Your task to perform on an android device: Show the shopping cart on costco. Search for bose soundlink on costco, select the first entry, add it to the cart, then select checkout. Image 0: 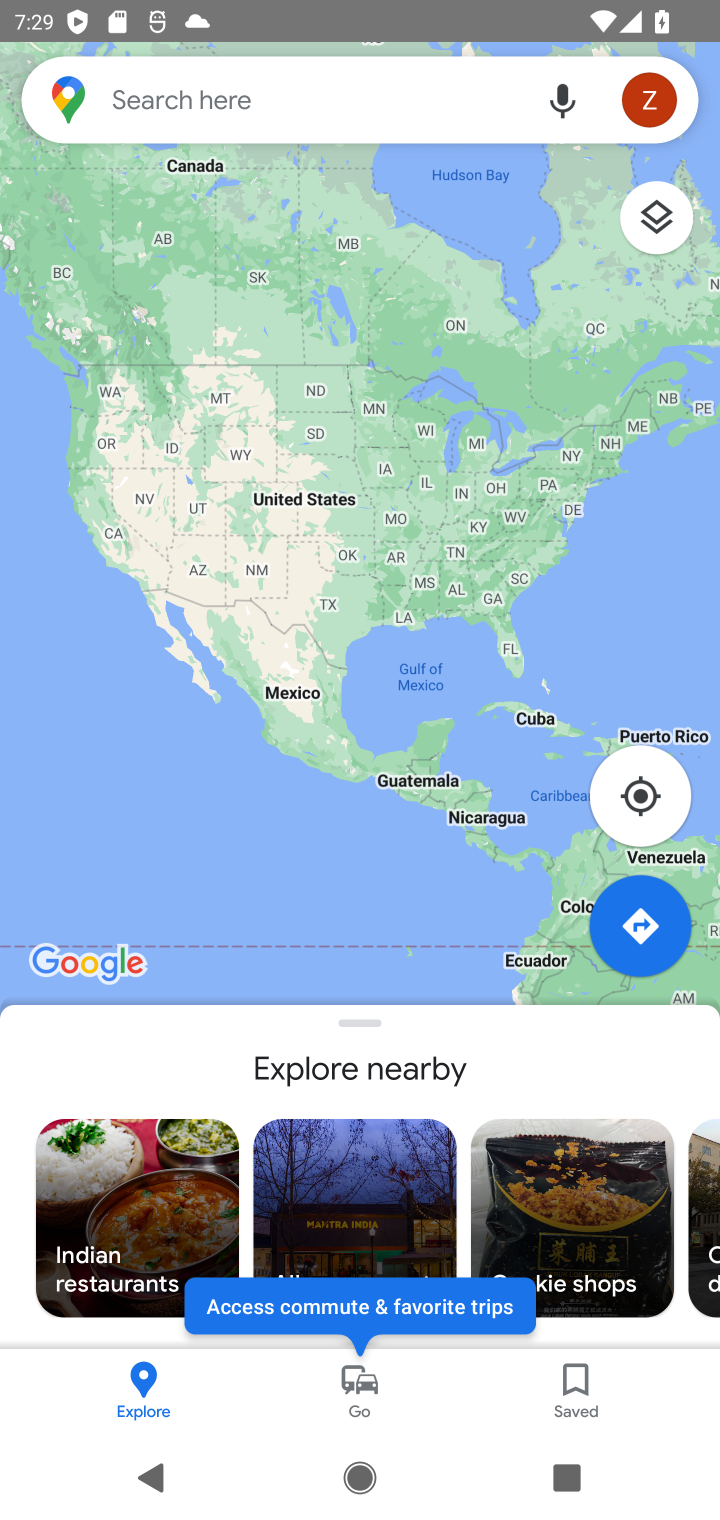
Step 0: press home button
Your task to perform on an android device: Show the shopping cart on costco. Search for bose soundlink on costco, select the first entry, add it to the cart, then select checkout. Image 1: 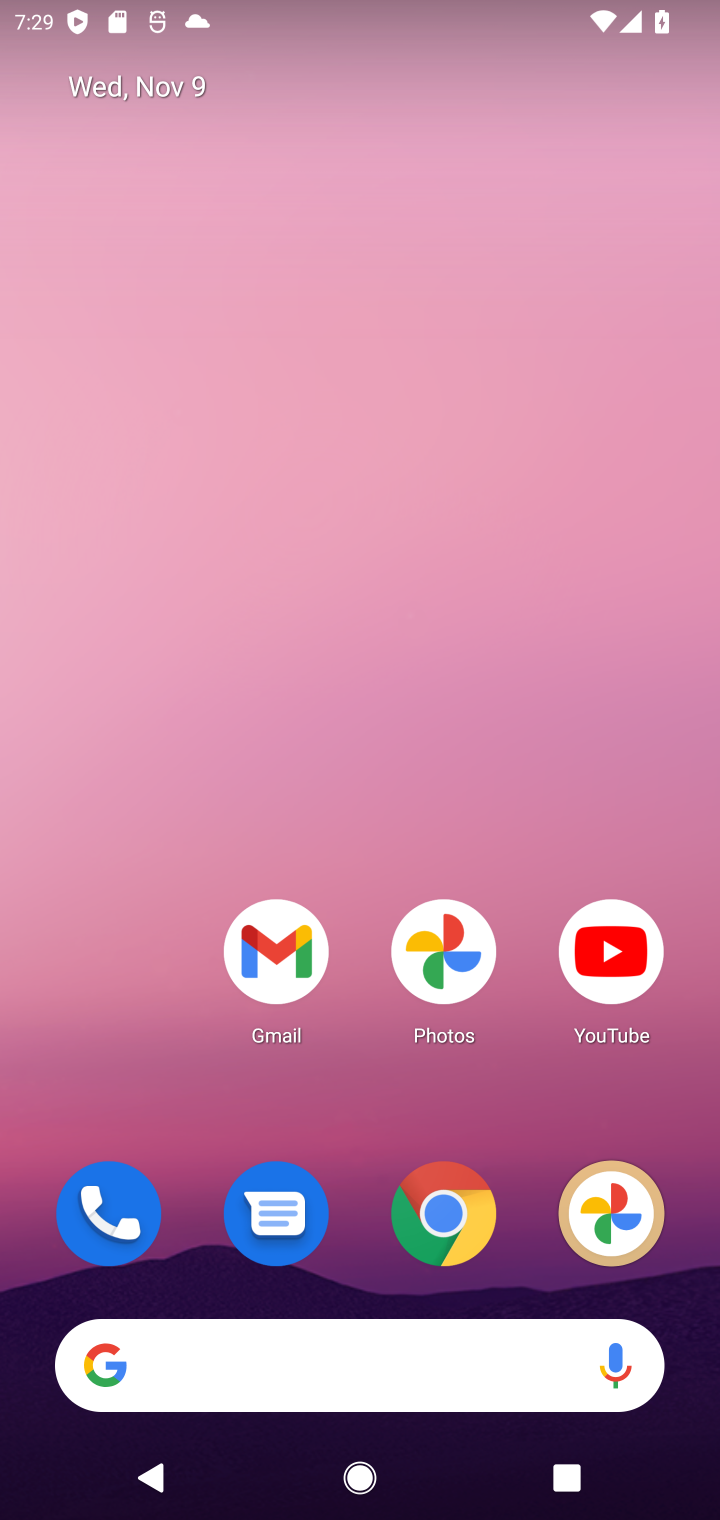
Step 1: click (456, 1203)
Your task to perform on an android device: Show the shopping cart on costco. Search for bose soundlink on costco, select the first entry, add it to the cart, then select checkout. Image 2: 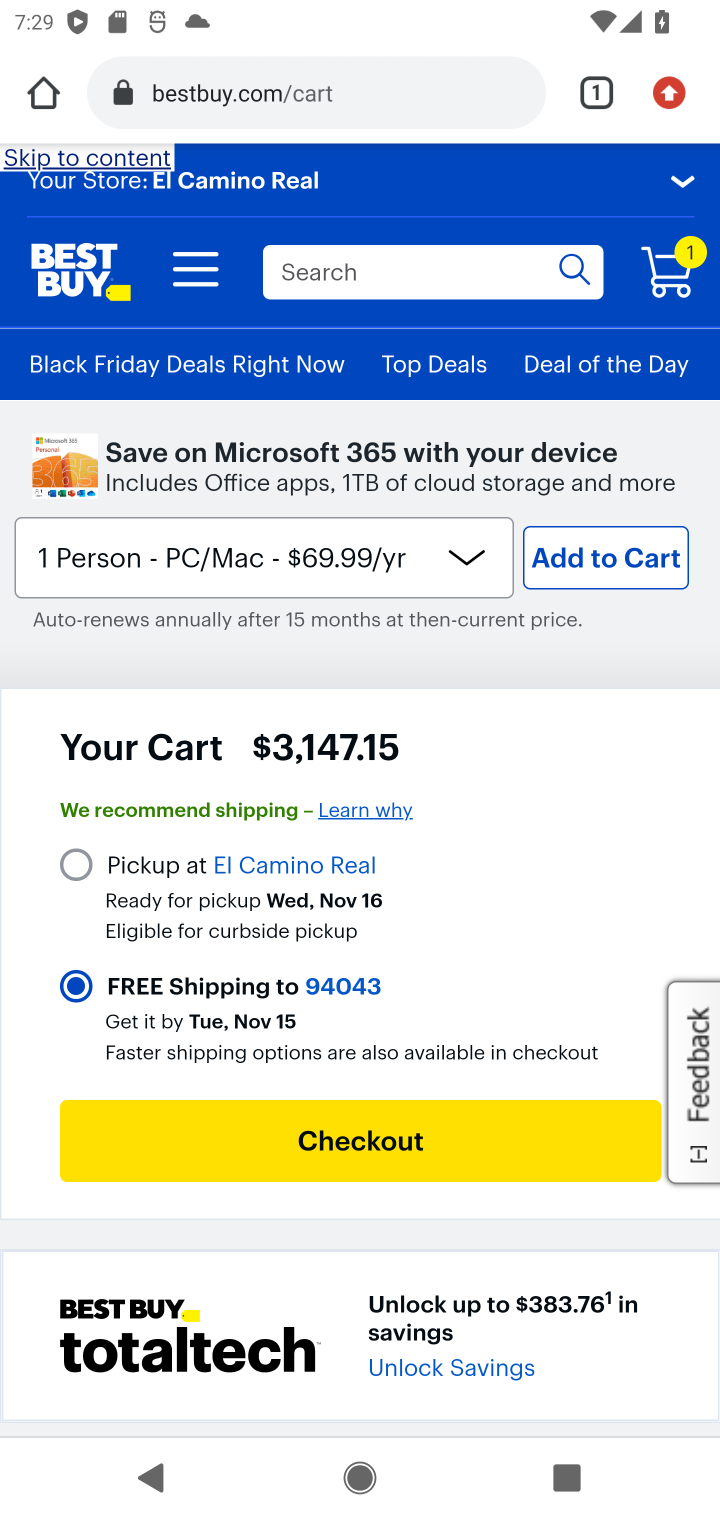
Step 2: click (213, 93)
Your task to perform on an android device: Show the shopping cart on costco. Search for bose soundlink on costco, select the first entry, add it to the cart, then select checkout. Image 3: 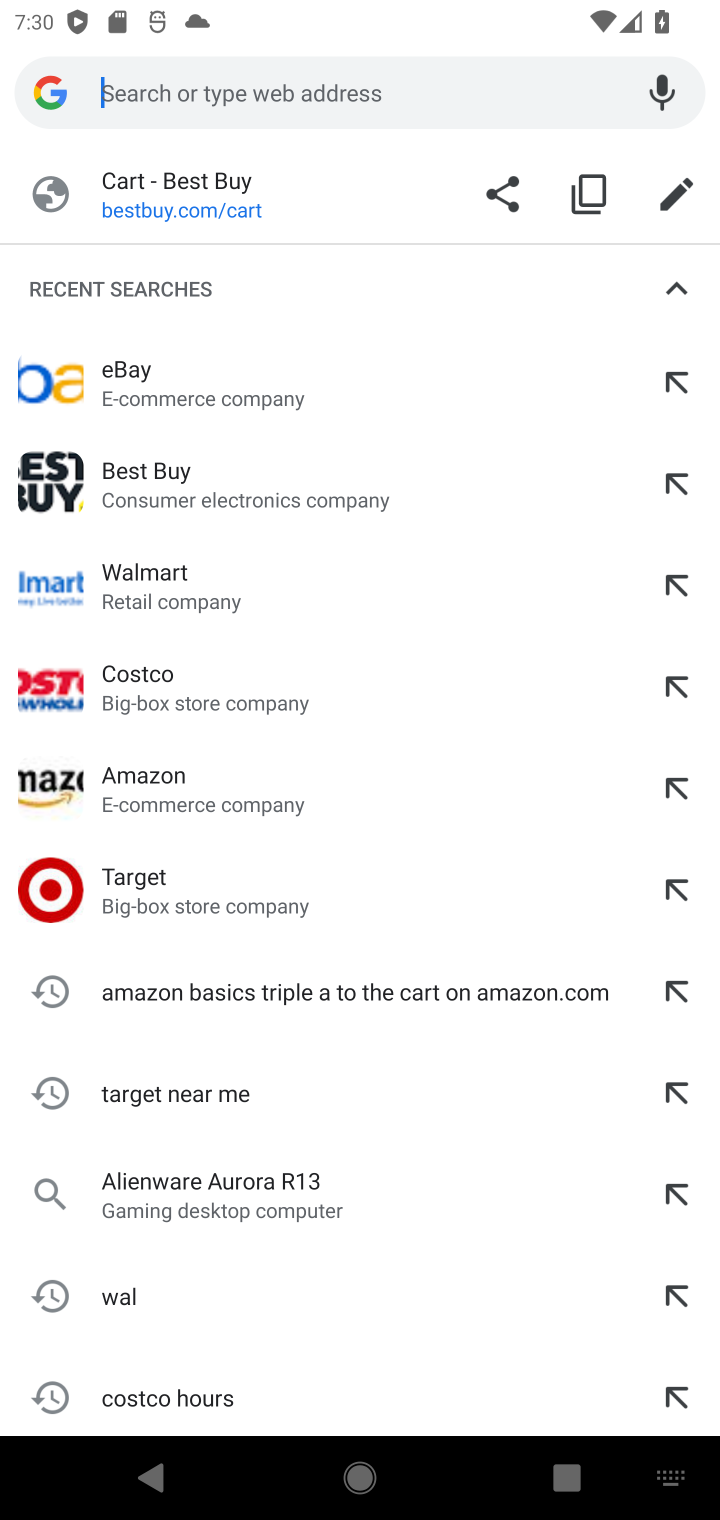
Step 3: type "costco"
Your task to perform on an android device: Show the shopping cart on costco. Search for bose soundlink on costco, select the first entry, add it to the cart, then select checkout. Image 4: 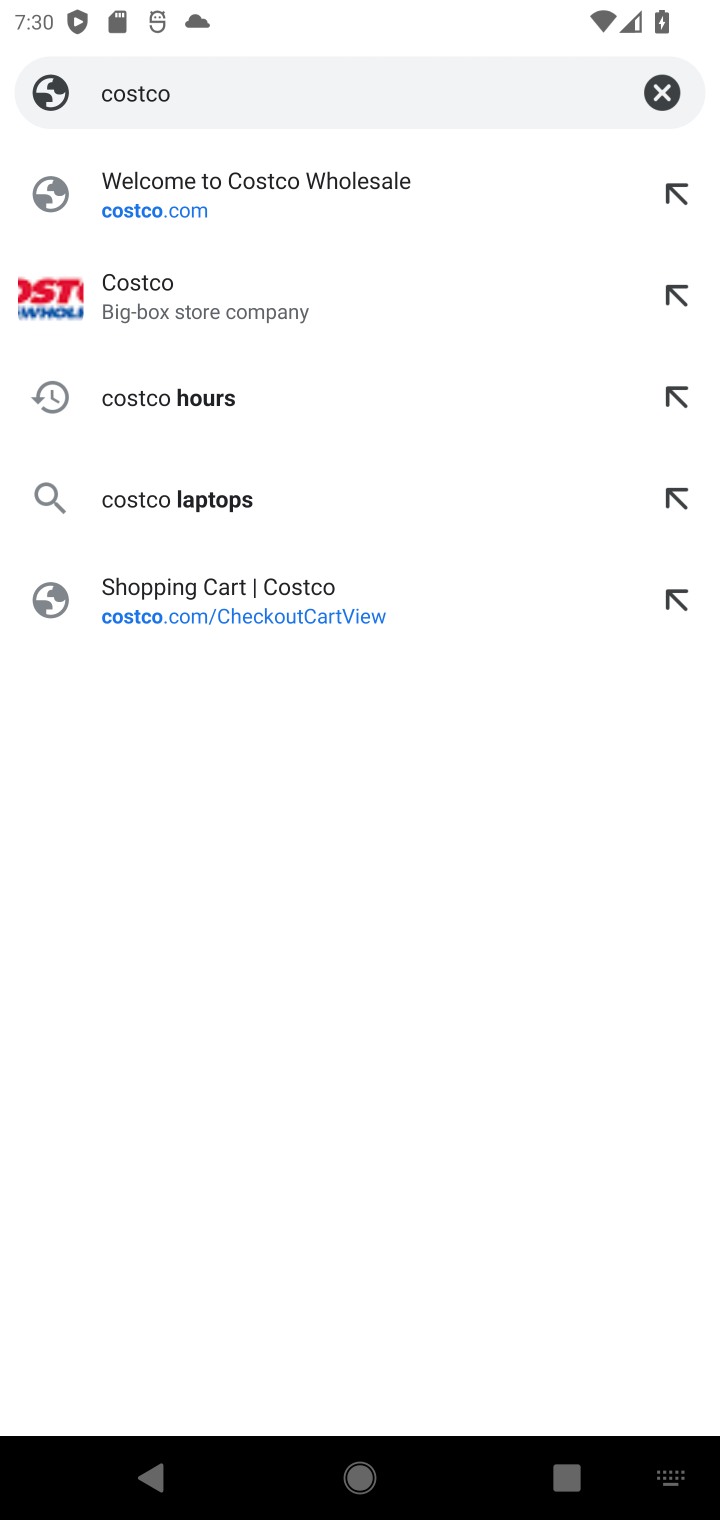
Step 4: click (173, 278)
Your task to perform on an android device: Show the shopping cart on costco. Search for bose soundlink on costco, select the first entry, add it to the cart, then select checkout. Image 5: 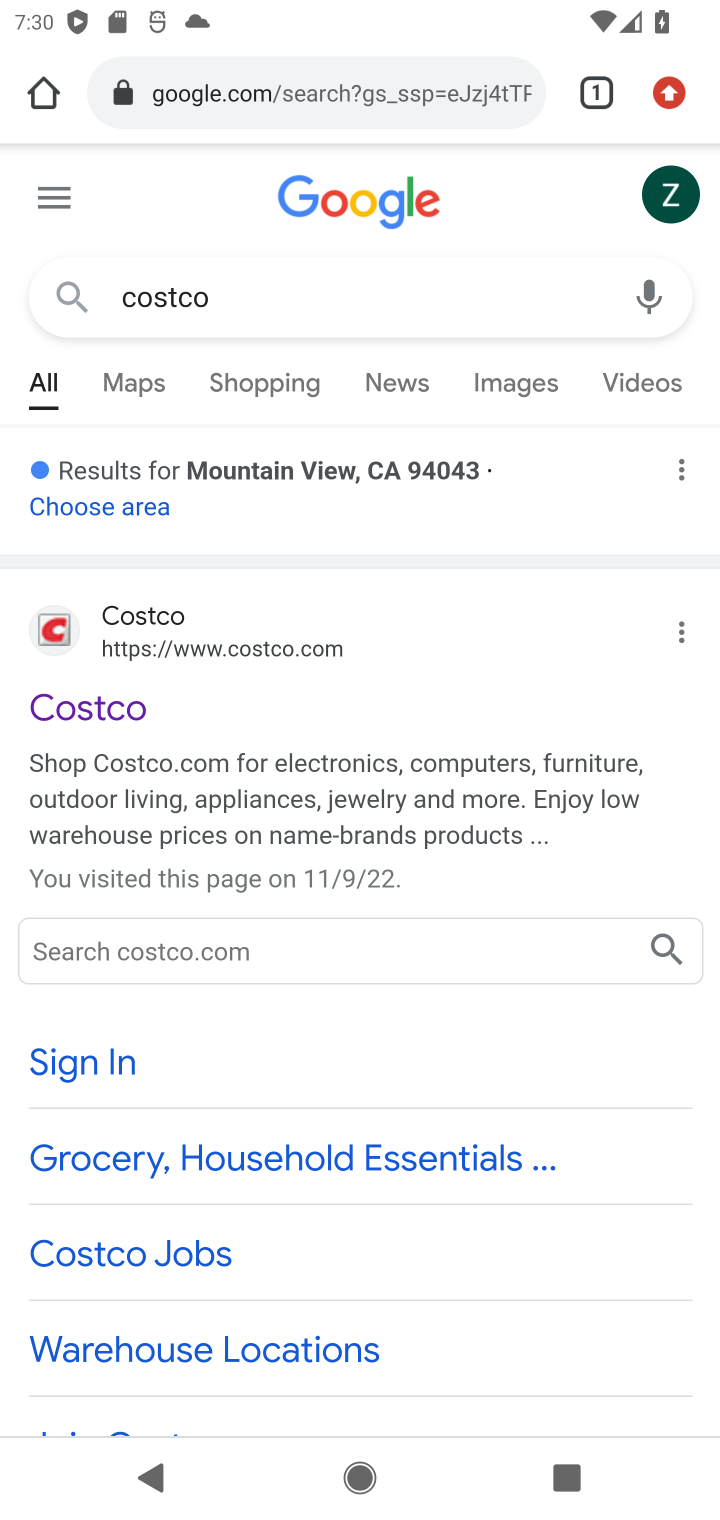
Step 5: click (75, 717)
Your task to perform on an android device: Show the shopping cart on costco. Search for bose soundlink on costco, select the first entry, add it to the cart, then select checkout. Image 6: 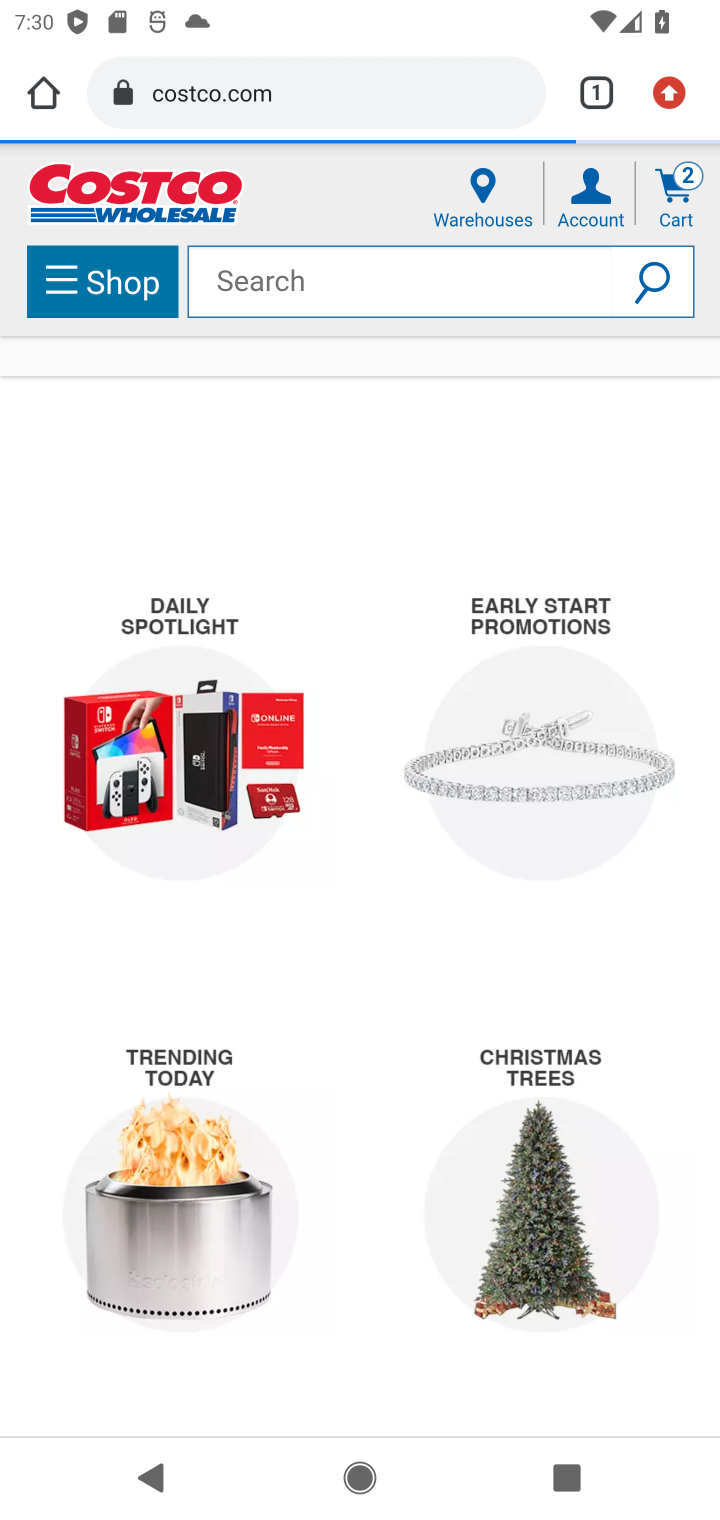
Step 6: click (270, 282)
Your task to perform on an android device: Show the shopping cart on costco. Search for bose soundlink on costco, select the first entry, add it to the cart, then select checkout. Image 7: 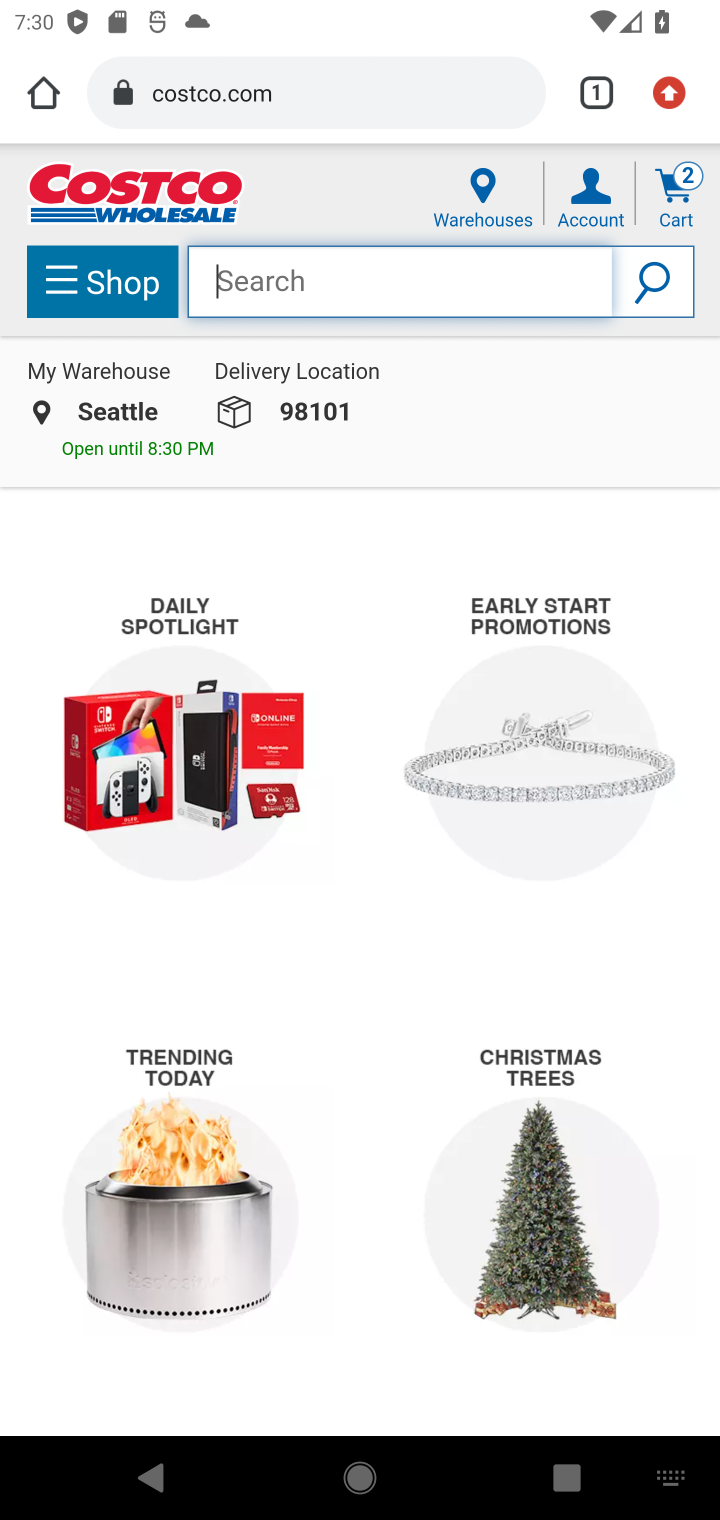
Step 7: type "bose soundlink"
Your task to perform on an android device: Show the shopping cart on costco. Search for bose soundlink on costco, select the first entry, add it to the cart, then select checkout. Image 8: 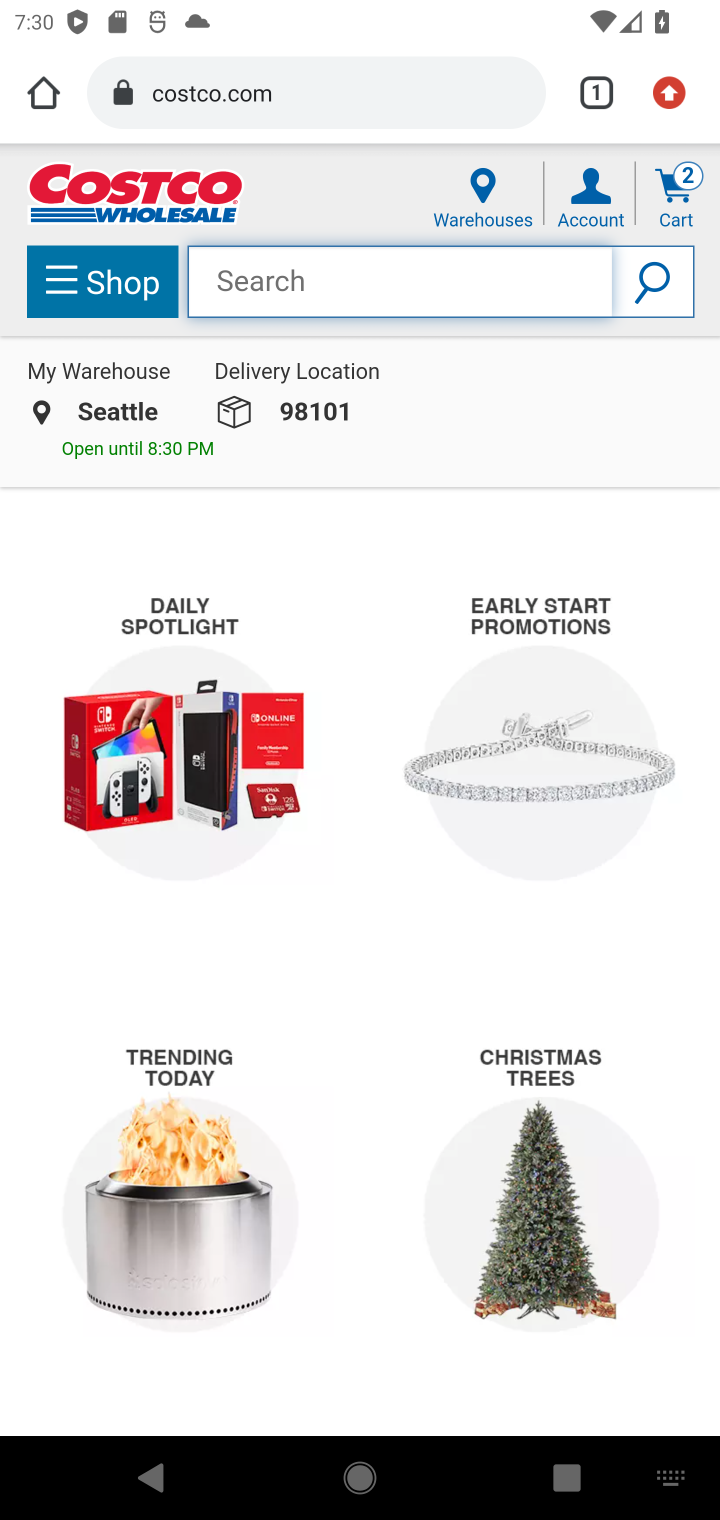
Step 8: type ""
Your task to perform on an android device: Show the shopping cart on costco. Search for bose soundlink on costco, select the first entry, add it to the cart, then select checkout. Image 9: 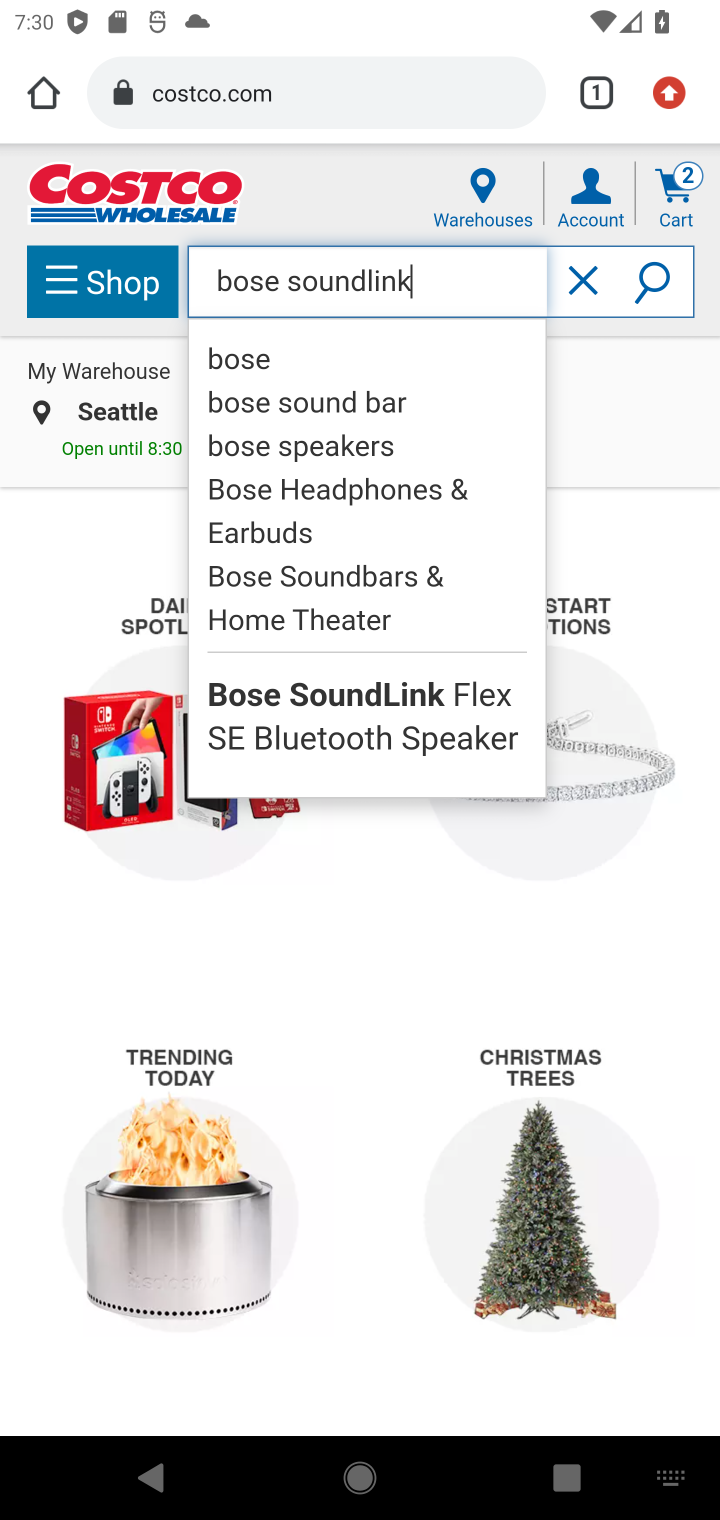
Step 9: click (232, 366)
Your task to perform on an android device: Show the shopping cart on costco. Search for bose soundlink on costco, select the first entry, add it to the cart, then select checkout. Image 10: 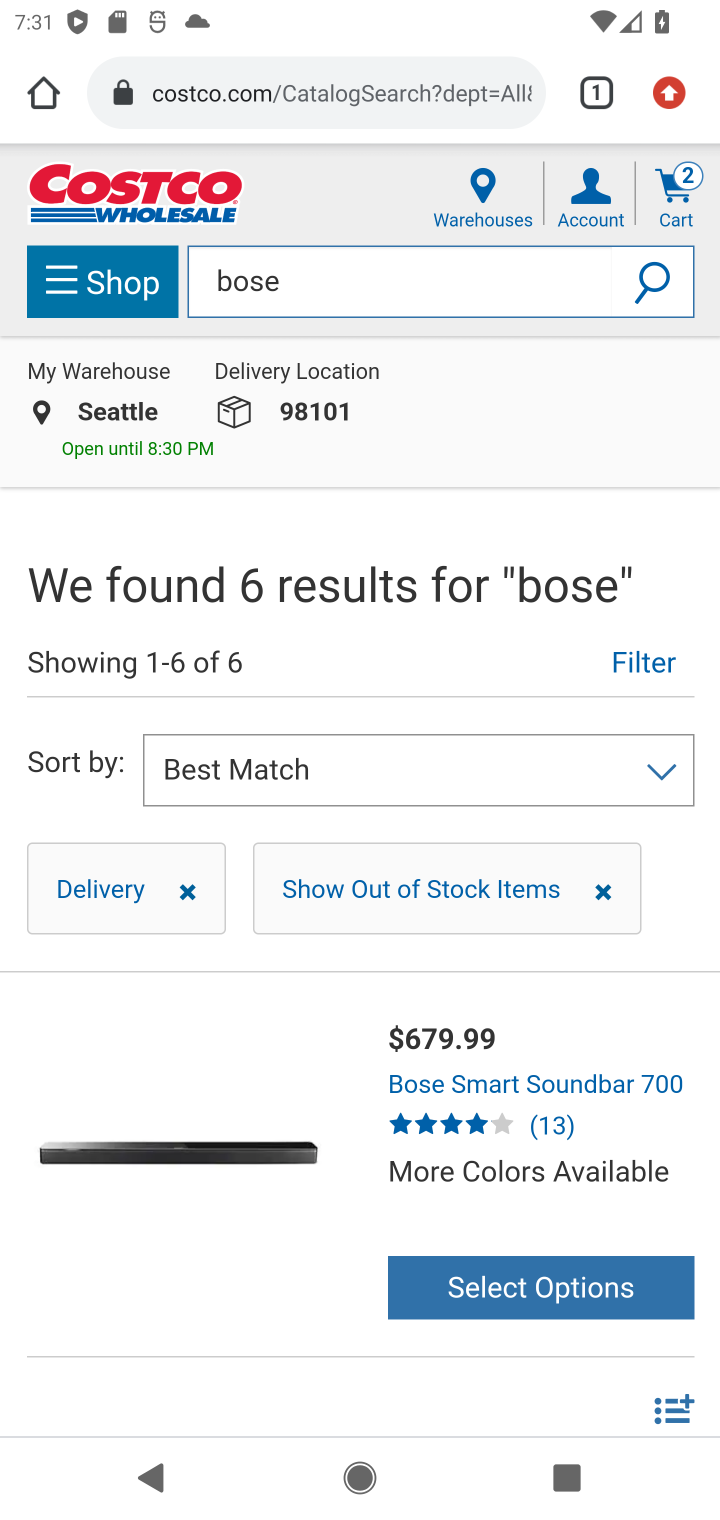
Step 10: click (672, 184)
Your task to perform on an android device: Show the shopping cart on costco. Search for bose soundlink on costco, select the first entry, add it to the cart, then select checkout. Image 11: 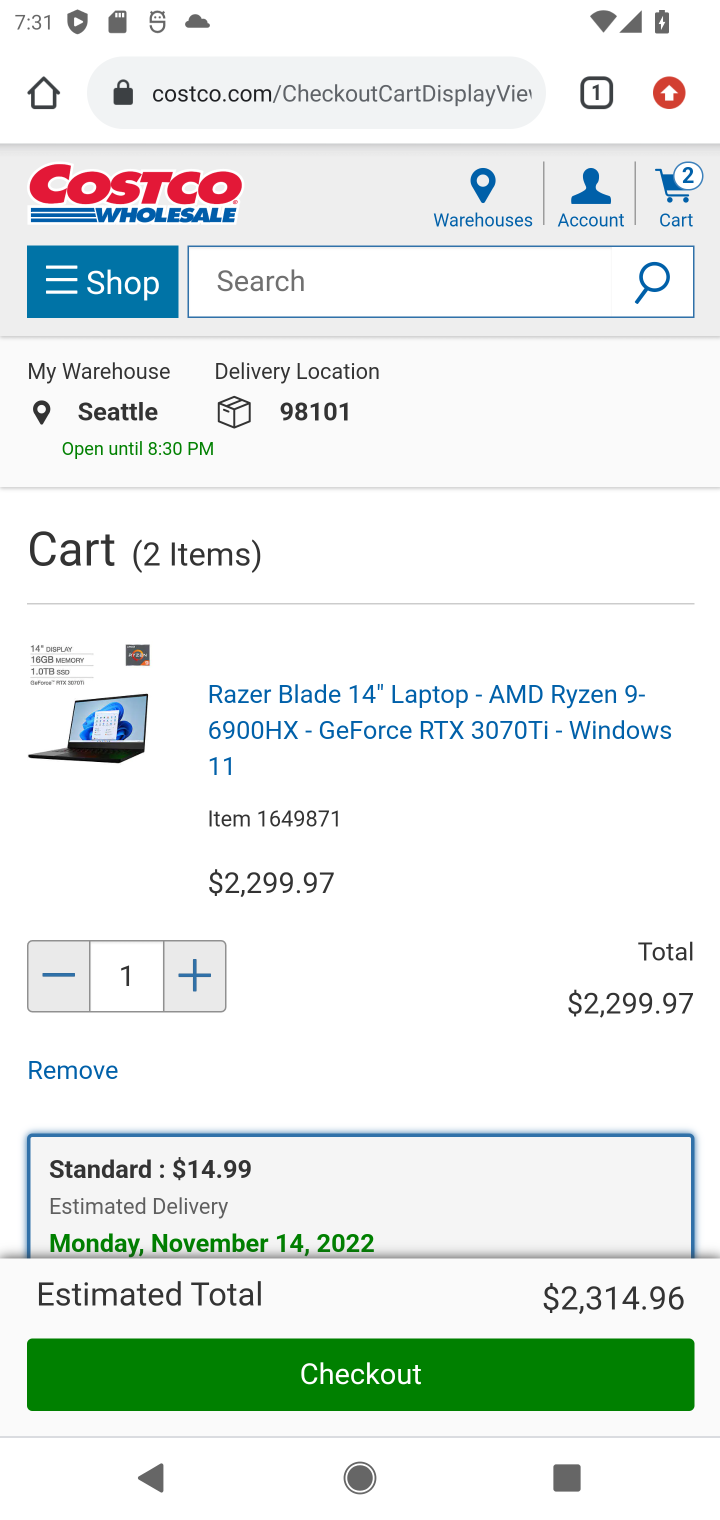
Step 11: click (465, 1384)
Your task to perform on an android device: Show the shopping cart on costco. Search for bose soundlink on costco, select the first entry, add it to the cart, then select checkout. Image 12: 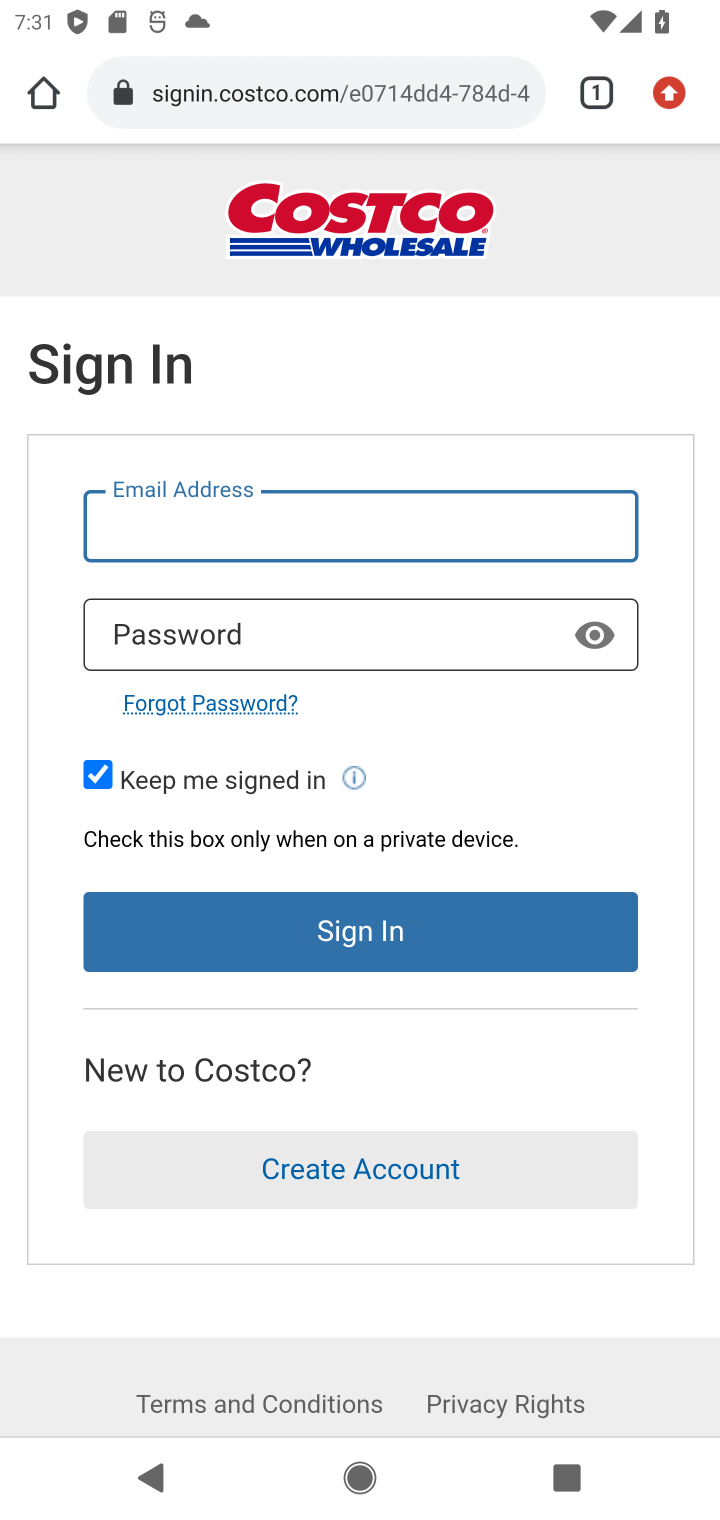
Step 12: click (259, 93)
Your task to perform on an android device: Show the shopping cart on costco. Search for bose soundlink on costco, select the first entry, add it to the cart, then select checkout. Image 13: 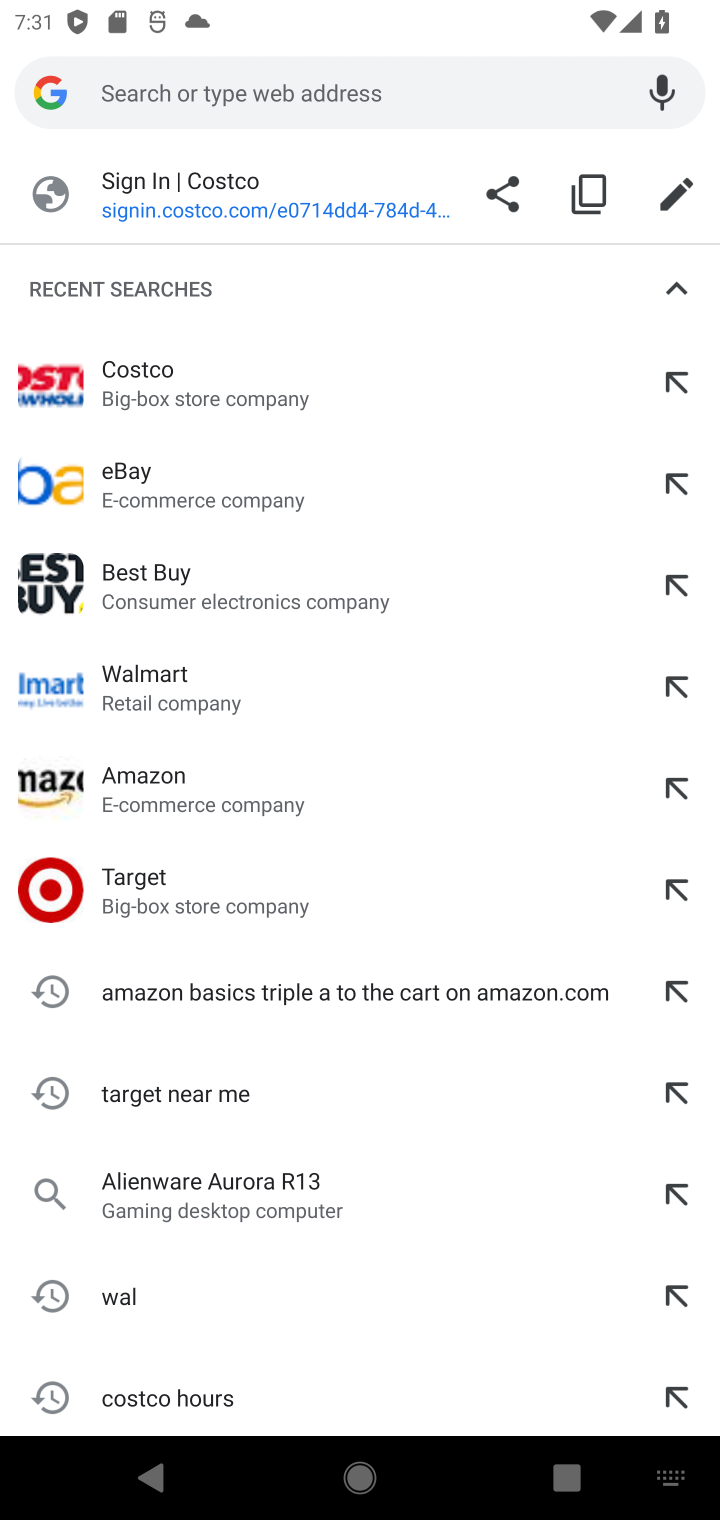
Step 13: click (126, 388)
Your task to perform on an android device: Show the shopping cart on costco. Search for bose soundlink on costco, select the first entry, add it to the cart, then select checkout. Image 14: 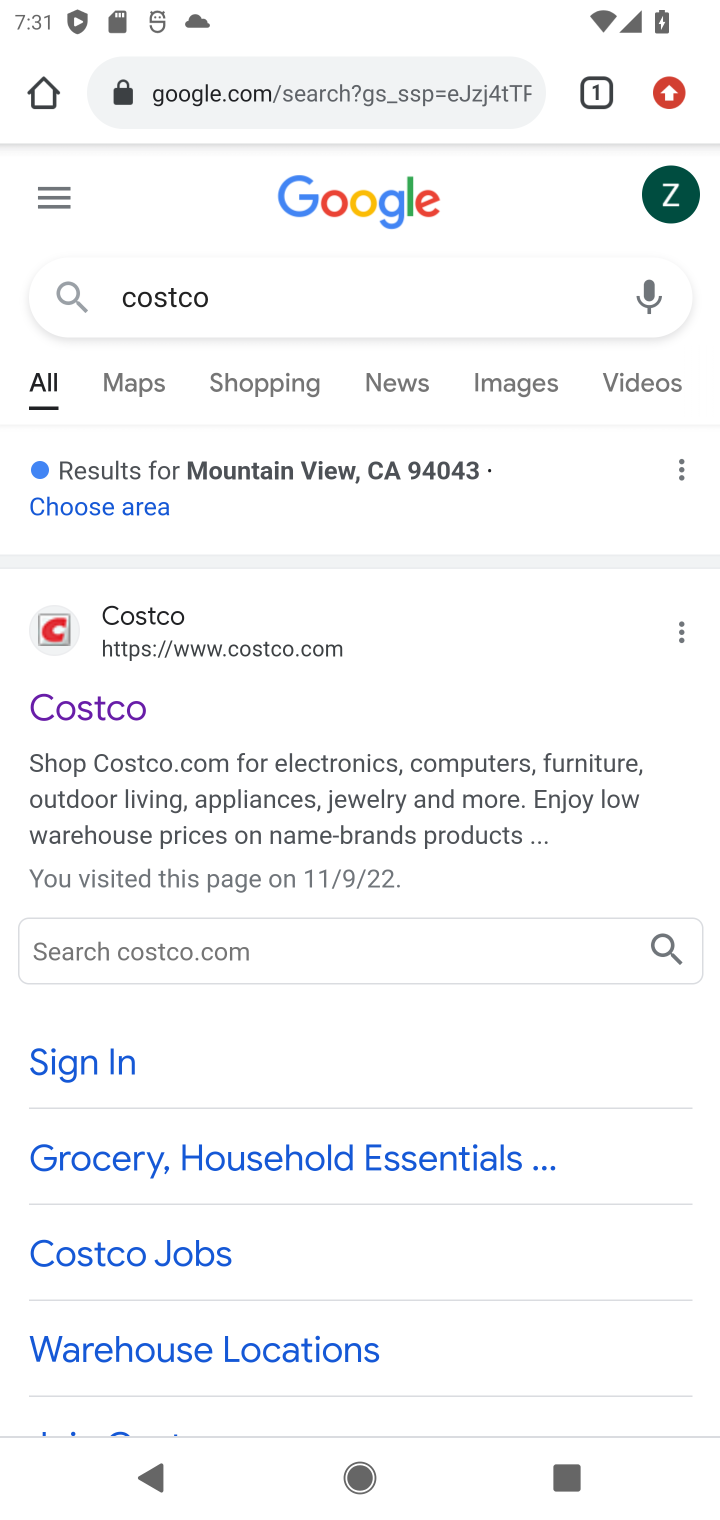
Step 14: click (81, 703)
Your task to perform on an android device: Show the shopping cart on costco. Search for bose soundlink on costco, select the first entry, add it to the cart, then select checkout. Image 15: 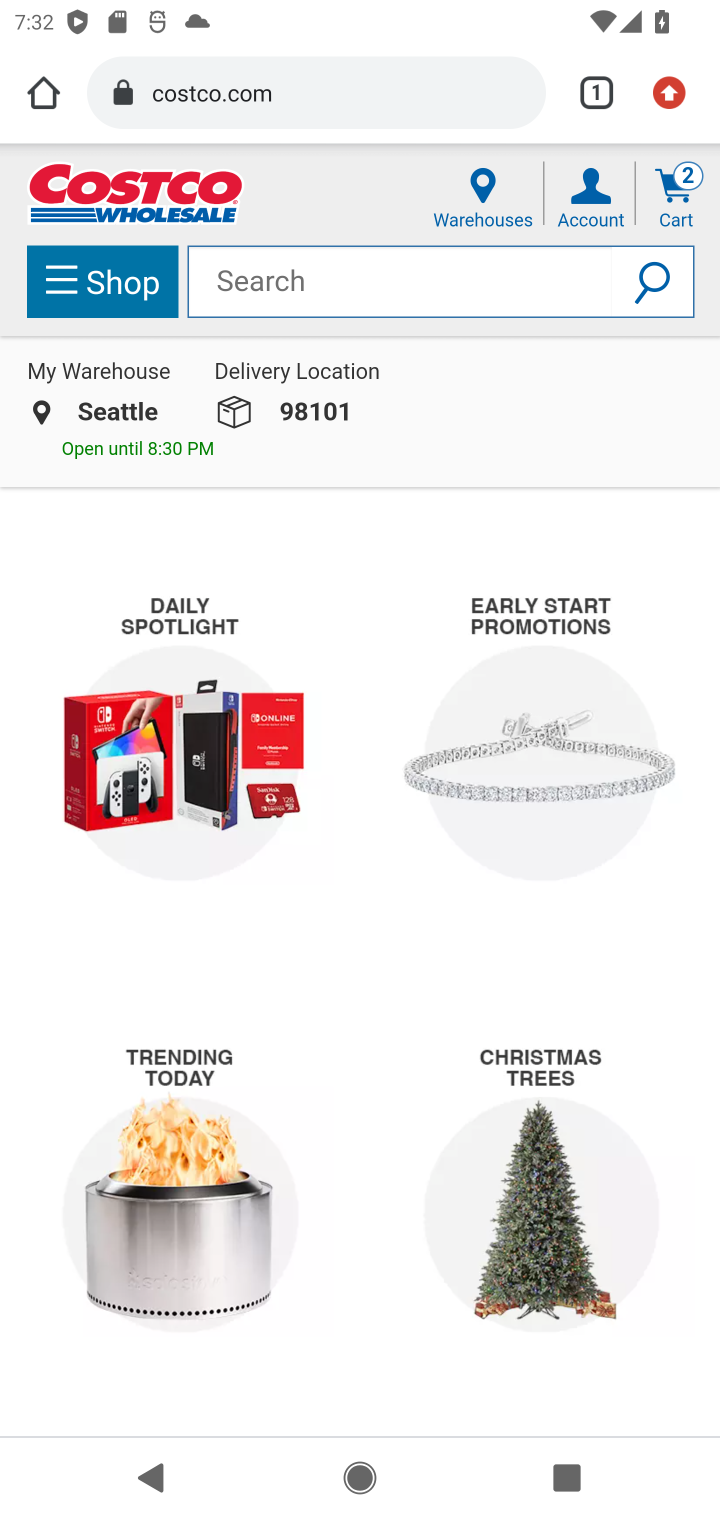
Step 15: click (401, 299)
Your task to perform on an android device: Show the shopping cart on costco. Search for bose soundlink on costco, select the first entry, add it to the cart, then select checkout. Image 16: 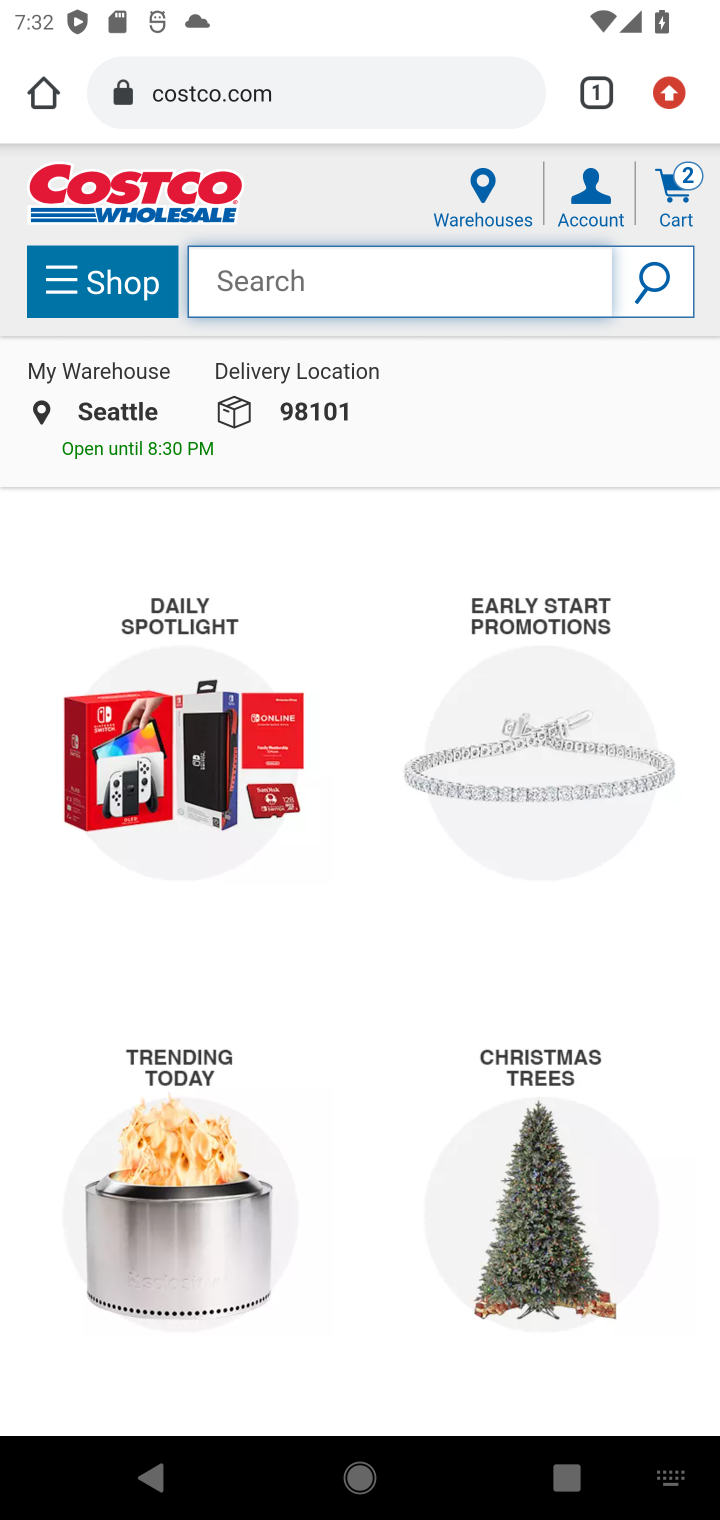
Step 16: type "bose soundlink "
Your task to perform on an android device: Show the shopping cart on costco. Search for bose soundlink on costco, select the first entry, add it to the cart, then select checkout. Image 17: 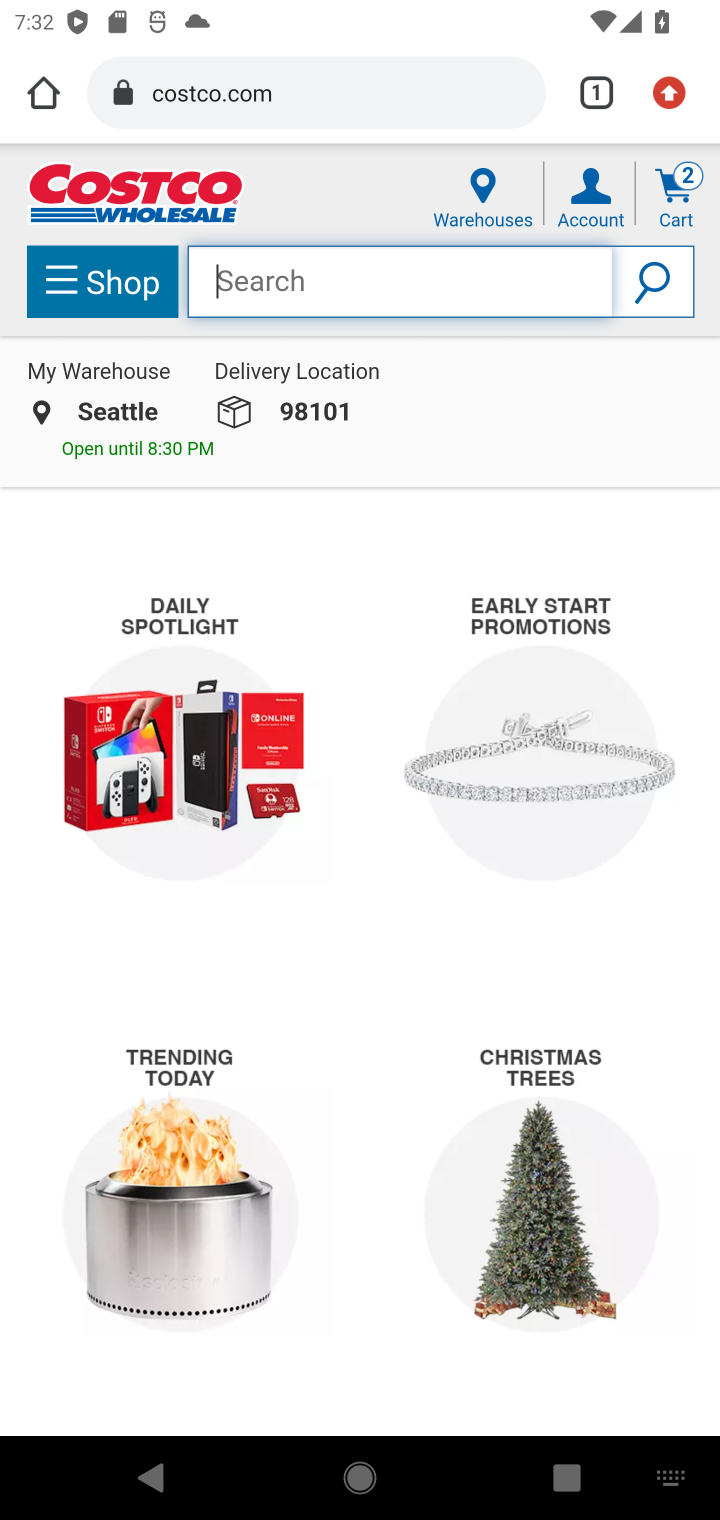
Step 17: type ""
Your task to perform on an android device: Show the shopping cart on costco. Search for bose soundlink on costco, select the first entry, add it to the cart, then select checkout. Image 18: 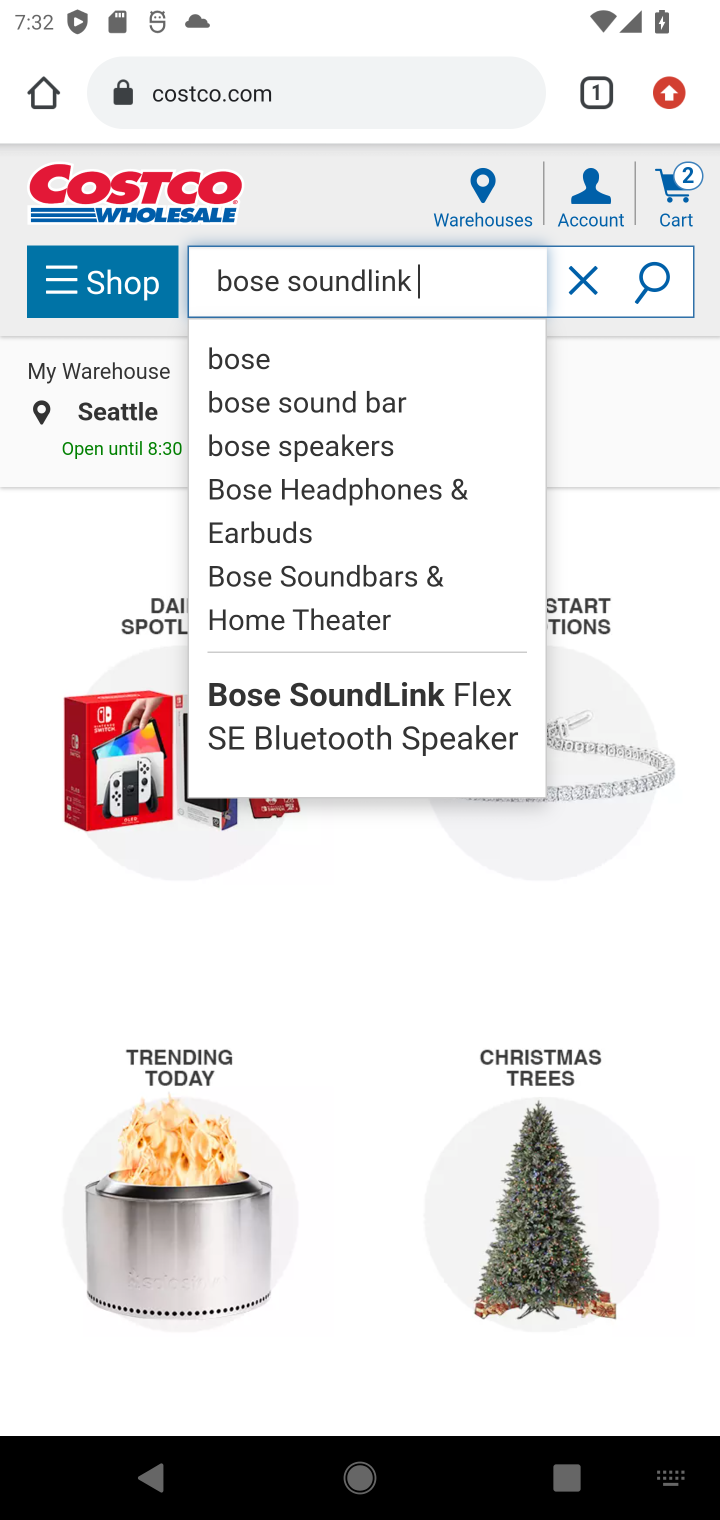
Step 18: click (237, 360)
Your task to perform on an android device: Show the shopping cart on costco. Search for bose soundlink on costco, select the first entry, add it to the cart, then select checkout. Image 19: 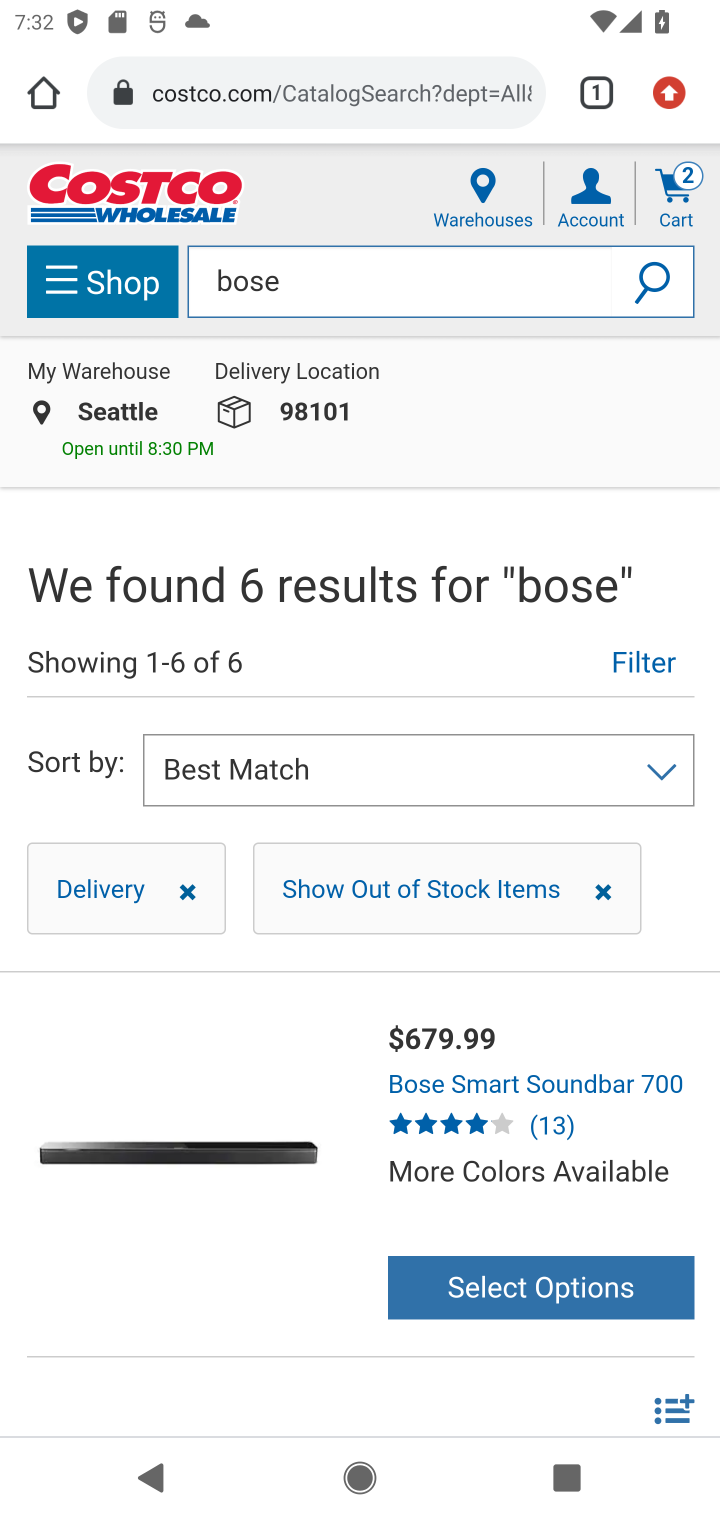
Step 19: drag from (203, 1239) to (407, 430)
Your task to perform on an android device: Show the shopping cart on costco. Search for bose soundlink on costco, select the first entry, add it to the cart, then select checkout. Image 20: 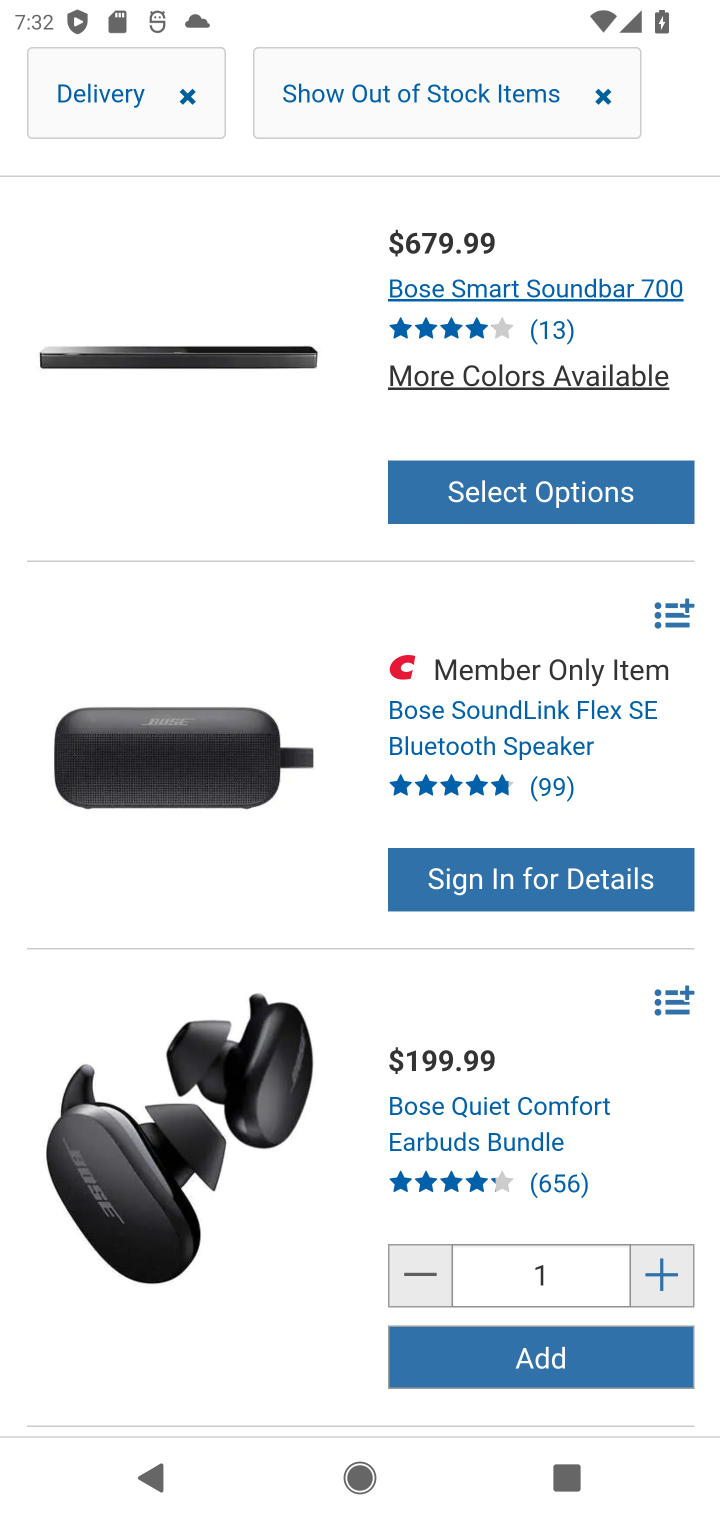
Step 20: click (440, 1124)
Your task to perform on an android device: Show the shopping cart on costco. Search for bose soundlink on costco, select the first entry, add it to the cart, then select checkout. Image 21: 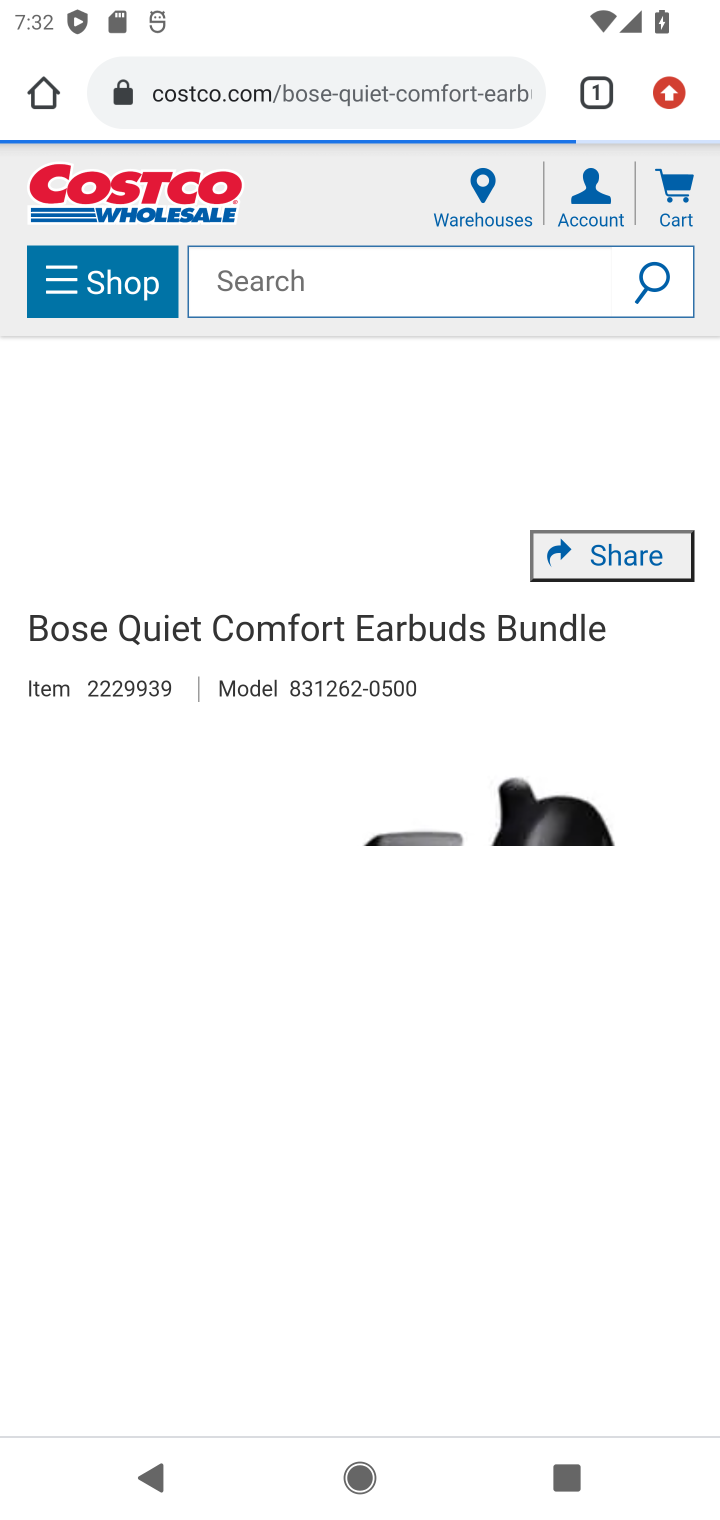
Step 21: drag from (490, 1198) to (575, 773)
Your task to perform on an android device: Show the shopping cart on costco. Search for bose soundlink on costco, select the first entry, add it to the cart, then select checkout. Image 22: 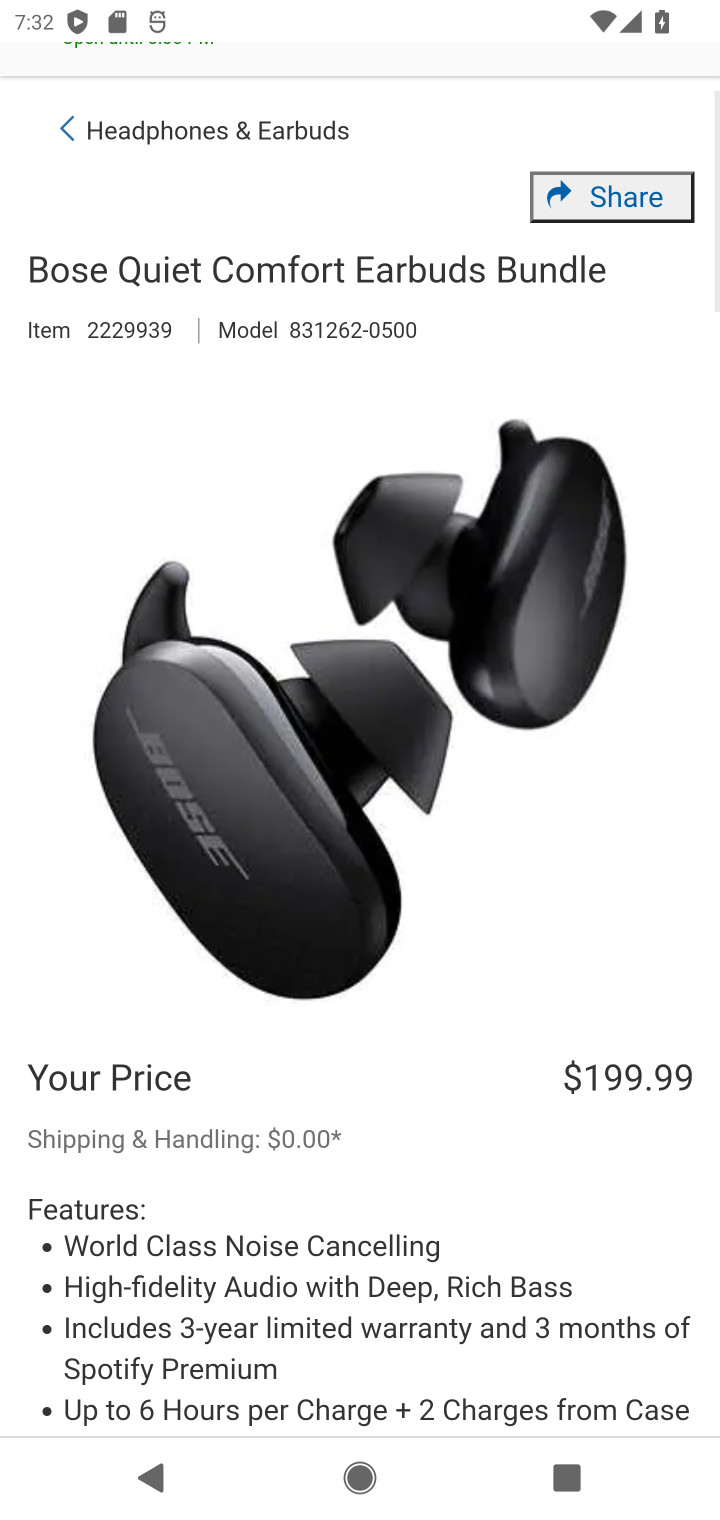
Step 22: drag from (497, 1024) to (492, 777)
Your task to perform on an android device: Show the shopping cart on costco. Search for bose soundlink on costco, select the first entry, add it to the cart, then select checkout. Image 23: 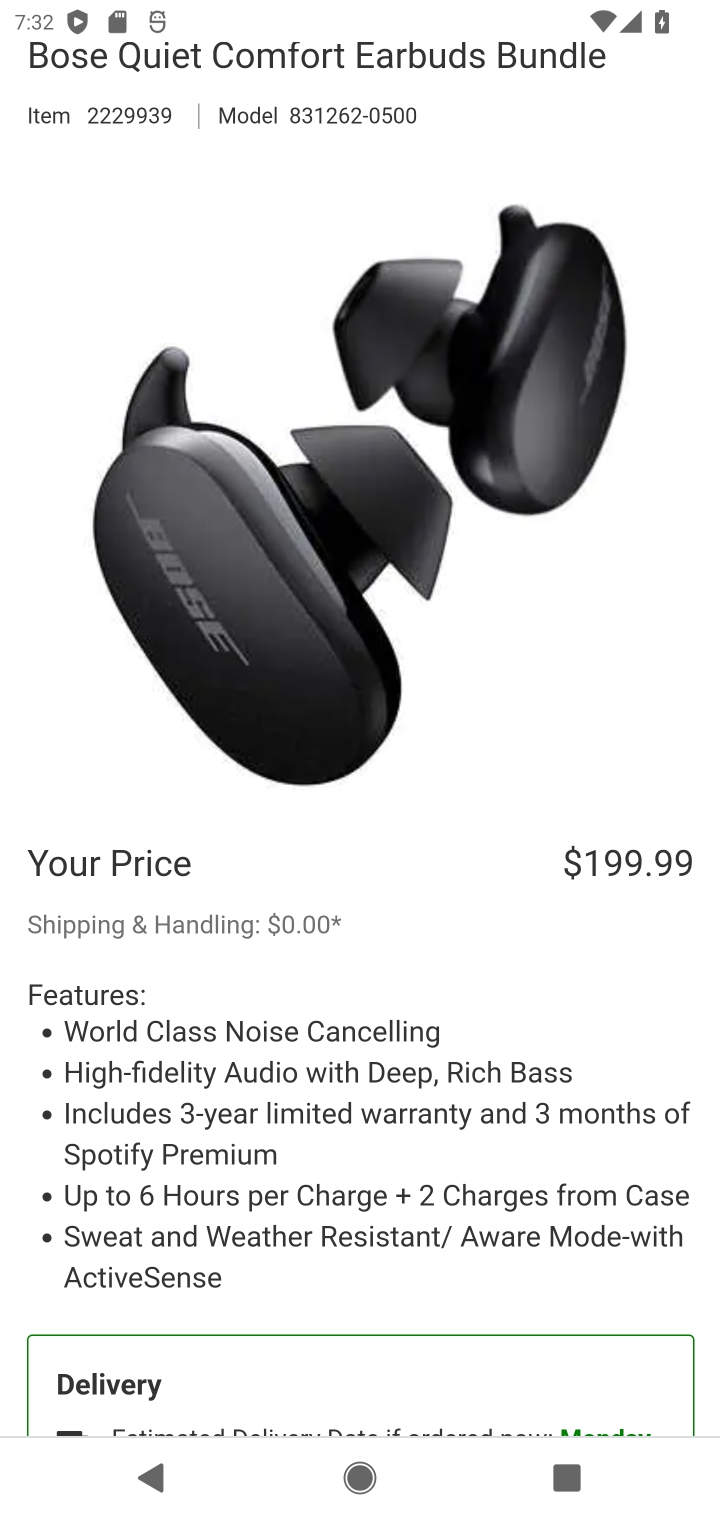
Step 23: drag from (407, 800) to (407, 631)
Your task to perform on an android device: Show the shopping cart on costco. Search for bose soundlink on costco, select the first entry, add it to the cart, then select checkout. Image 24: 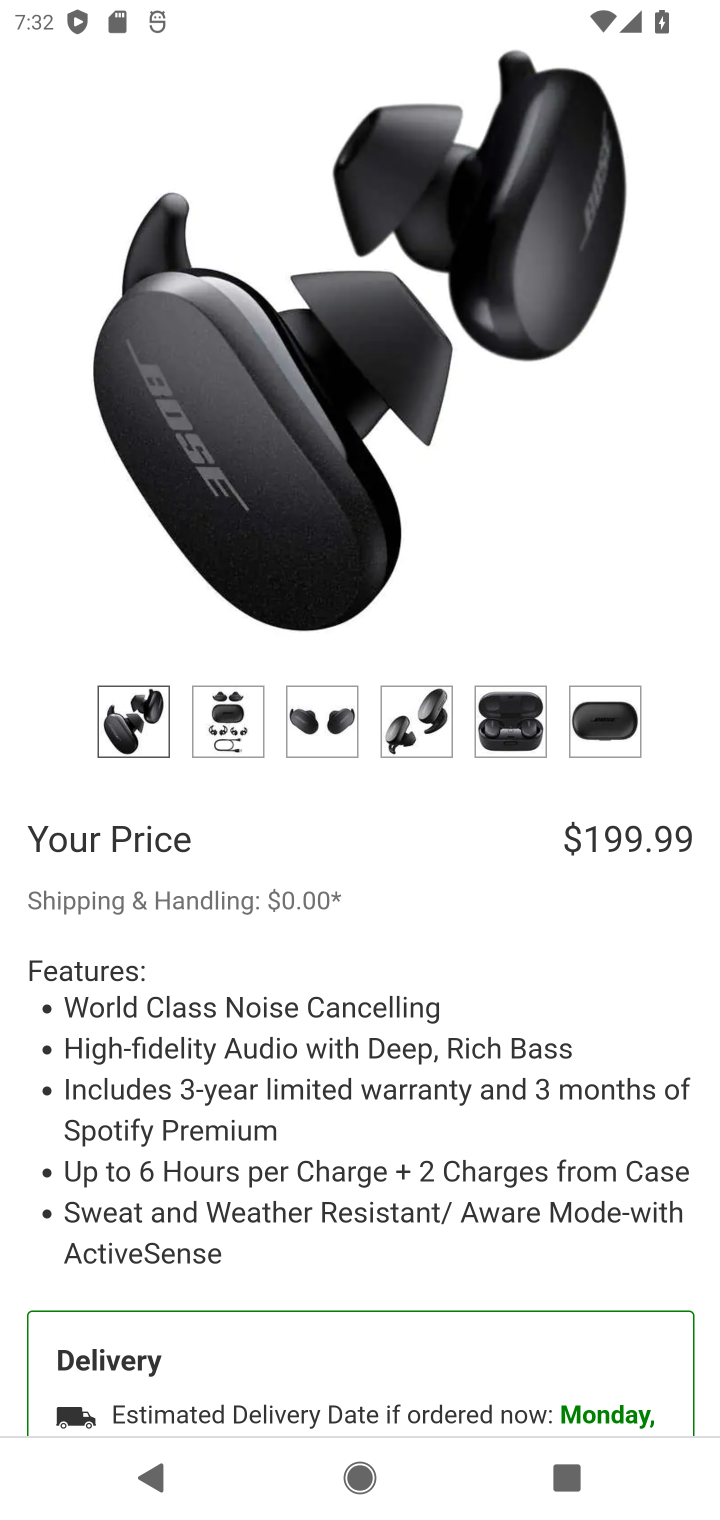
Step 24: drag from (413, 750) to (413, 672)
Your task to perform on an android device: Show the shopping cart on costco. Search for bose soundlink on costco, select the first entry, add it to the cart, then select checkout. Image 25: 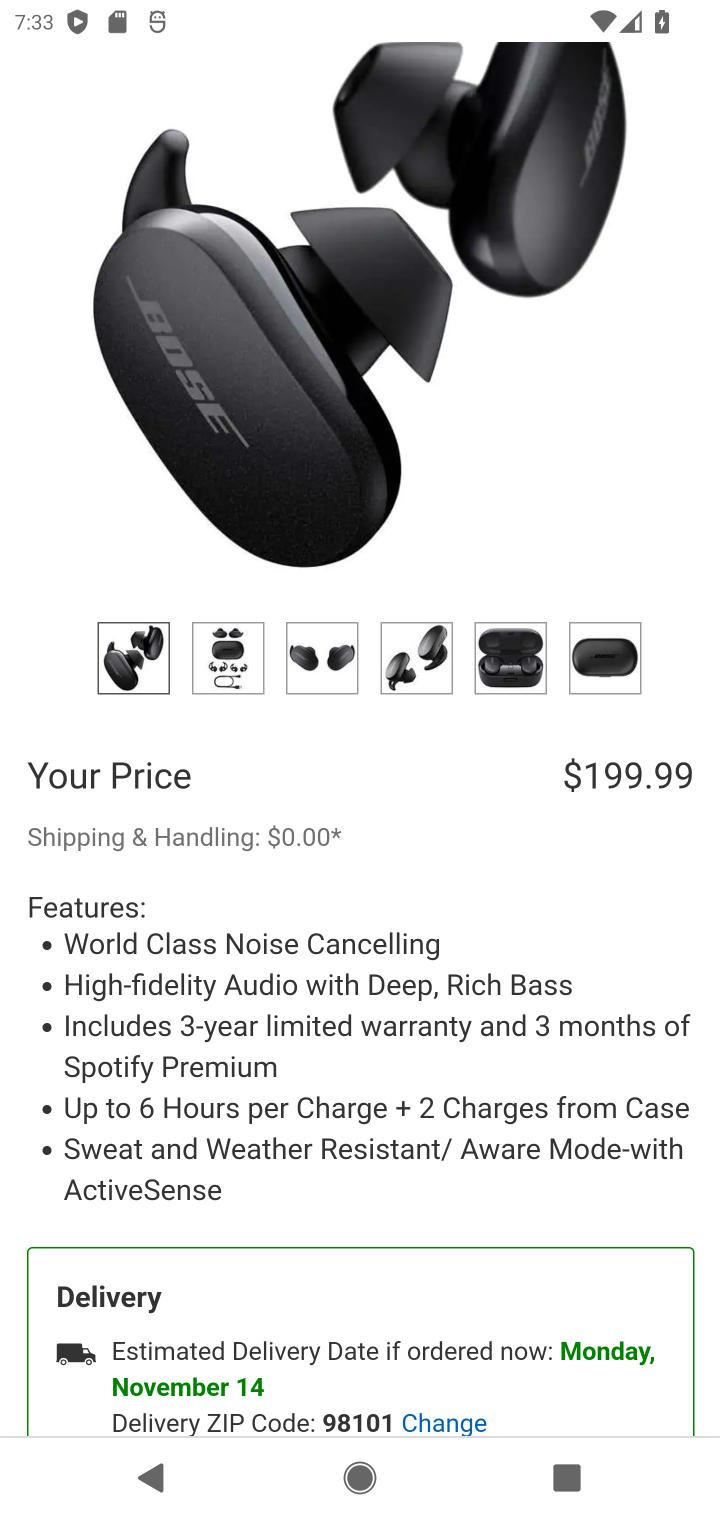
Step 25: drag from (469, 1115) to (494, 543)
Your task to perform on an android device: Show the shopping cart on costco. Search for bose soundlink on costco, select the first entry, add it to the cart, then select checkout. Image 26: 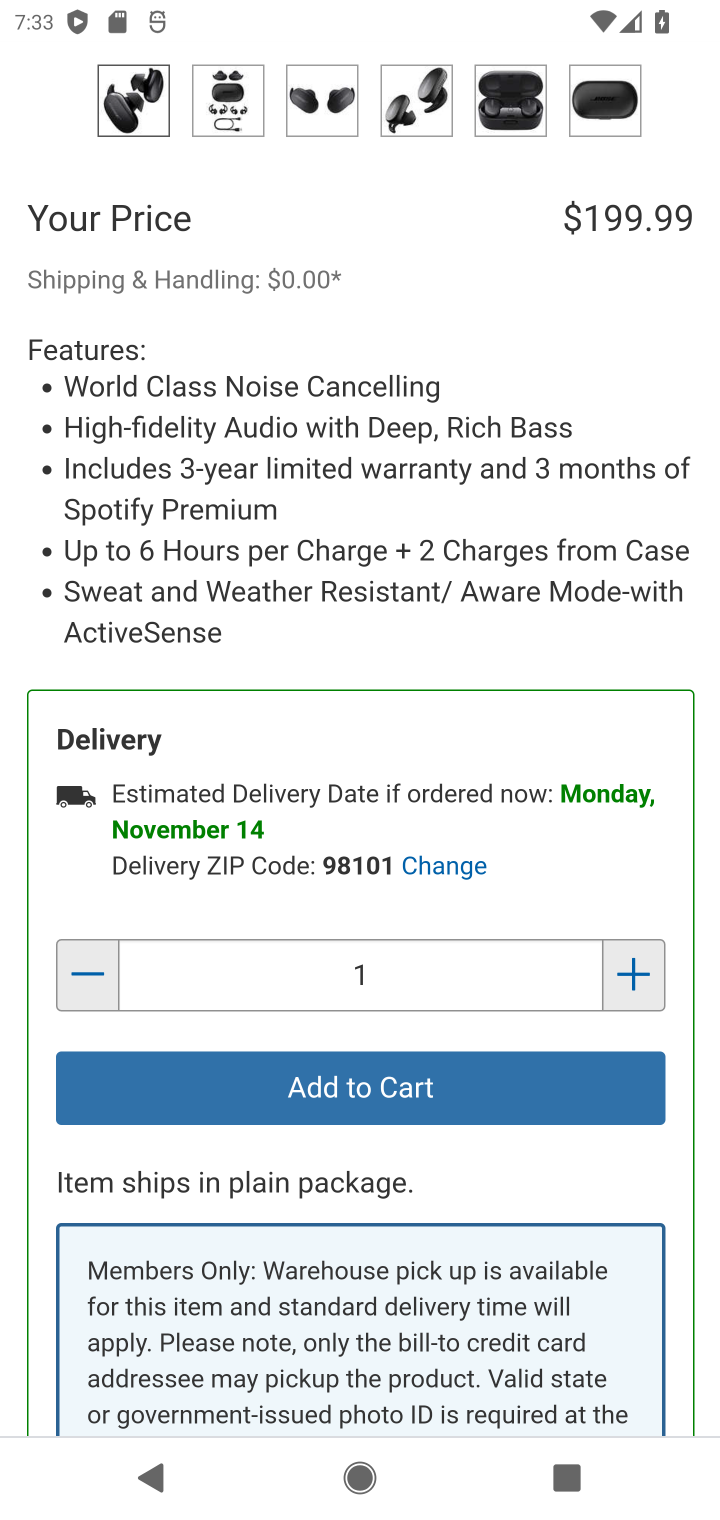
Step 26: click (417, 1104)
Your task to perform on an android device: Show the shopping cart on costco. Search for bose soundlink on costco, select the first entry, add it to the cart, then select checkout. Image 27: 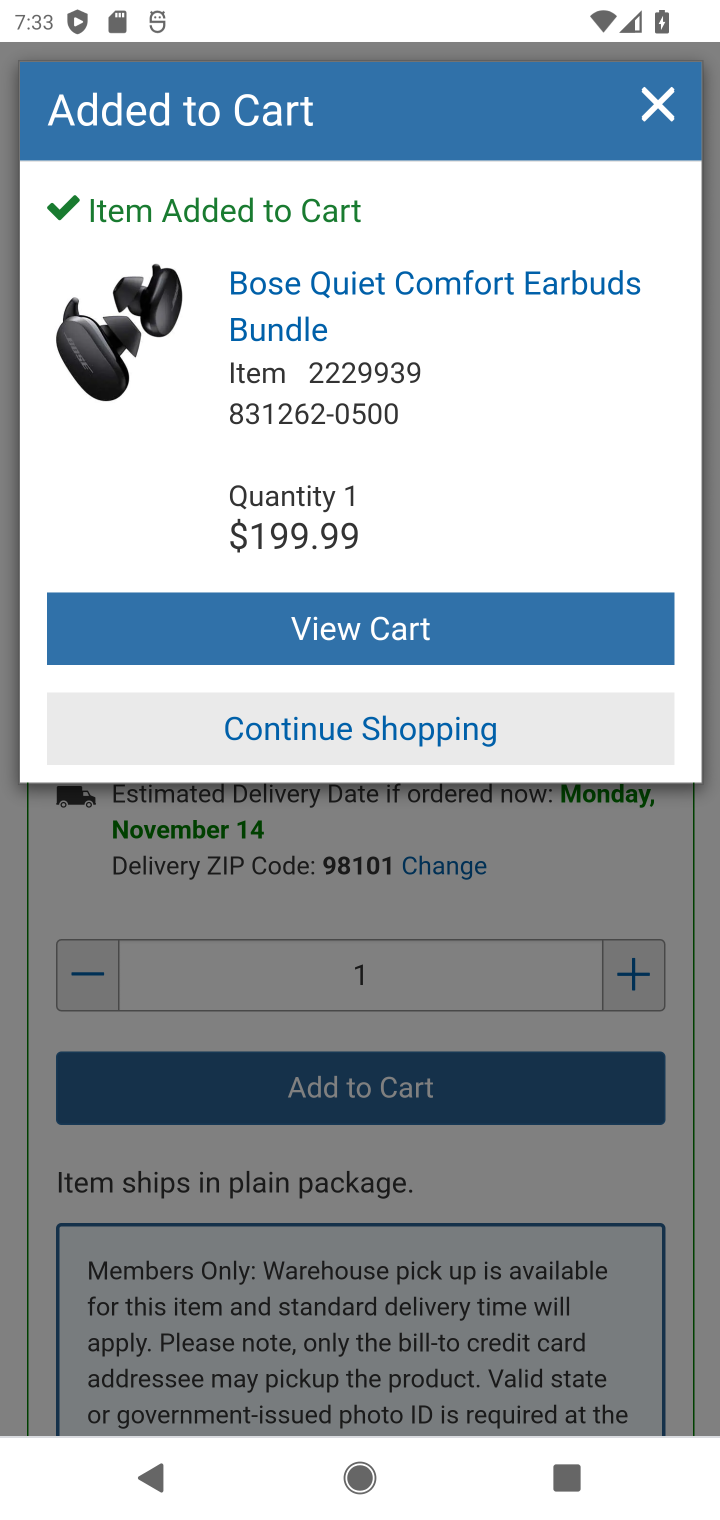
Step 27: click (340, 648)
Your task to perform on an android device: Show the shopping cart on costco. Search for bose soundlink on costco, select the first entry, add it to the cart, then select checkout. Image 28: 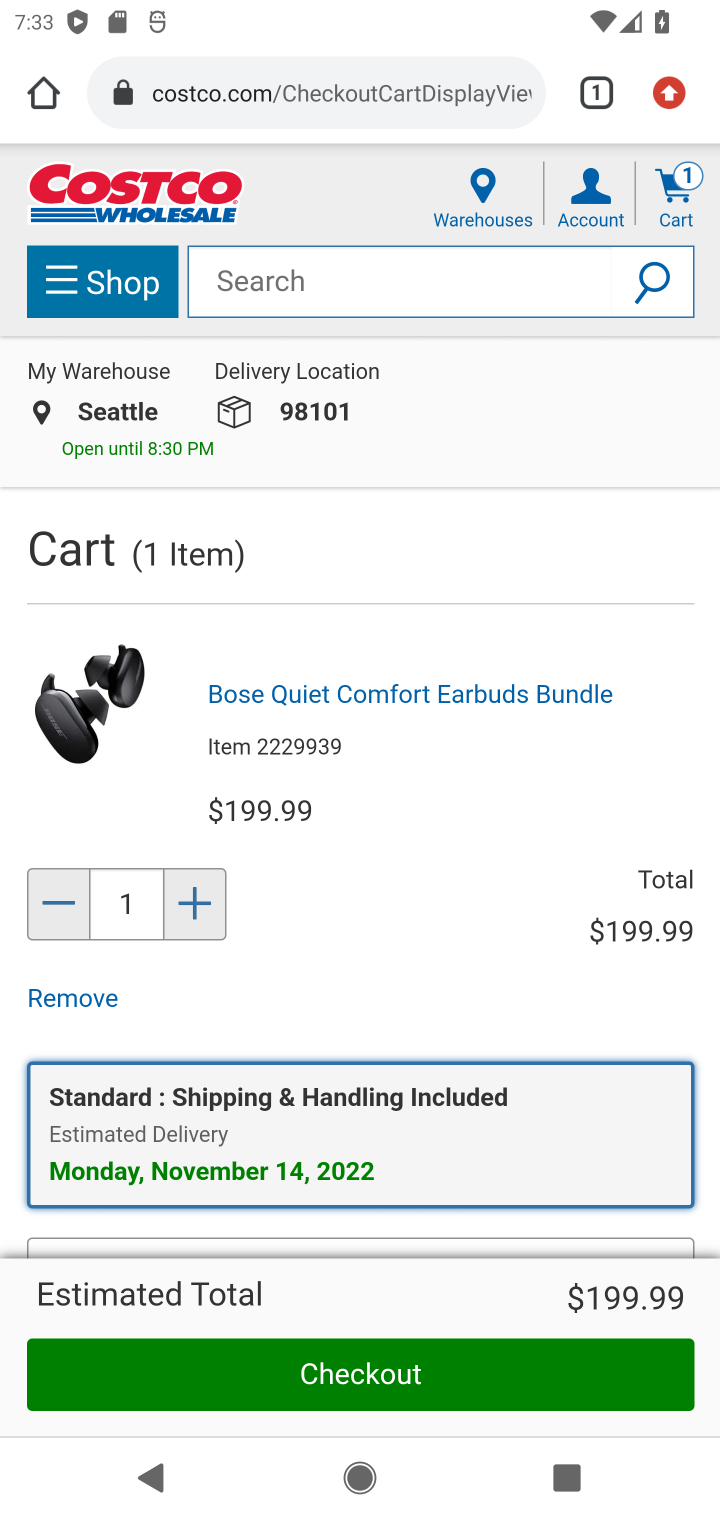
Step 28: click (367, 1383)
Your task to perform on an android device: Show the shopping cart on costco. Search for bose soundlink on costco, select the first entry, add it to the cart, then select checkout. Image 29: 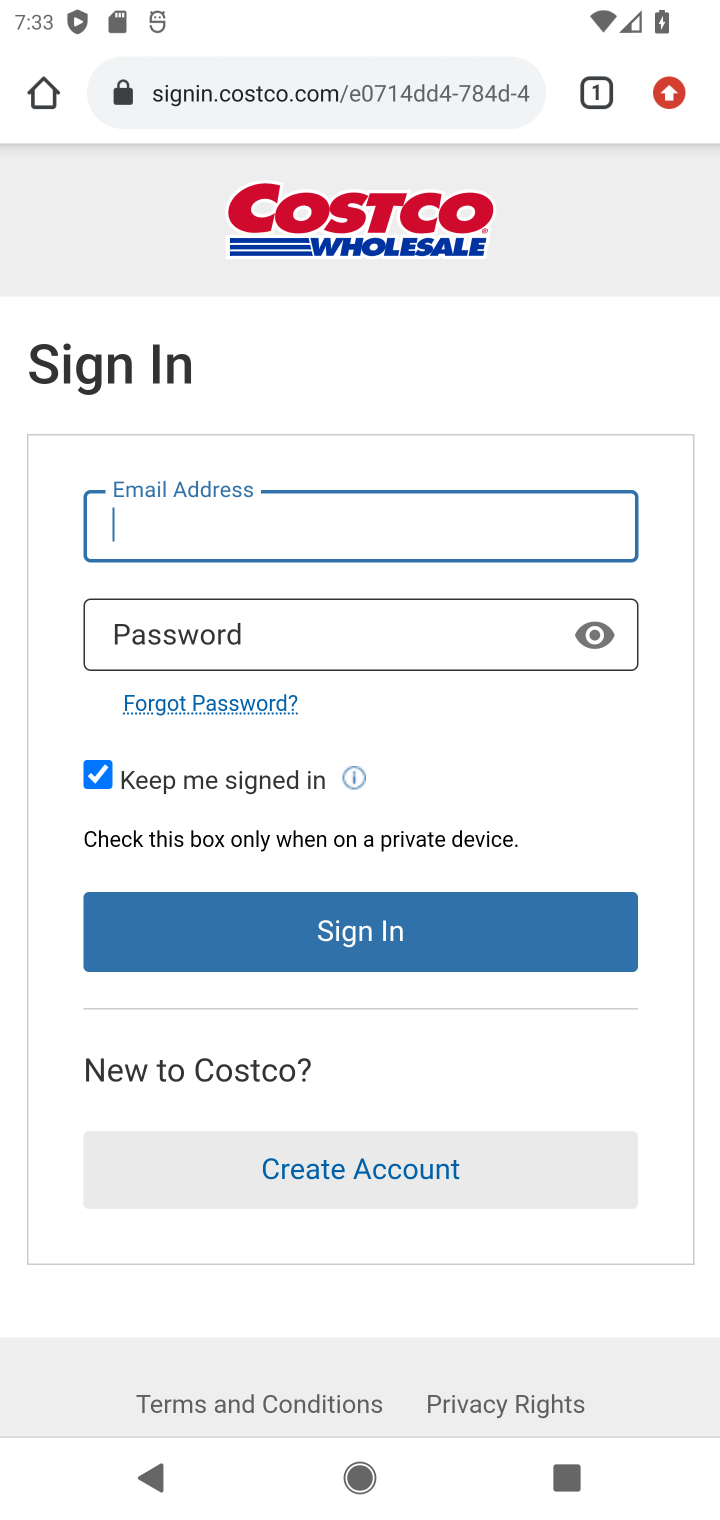
Step 29: task complete